Your task to perform on an android device: Open Google Chrome and click the shortcut for Amazon.com Image 0: 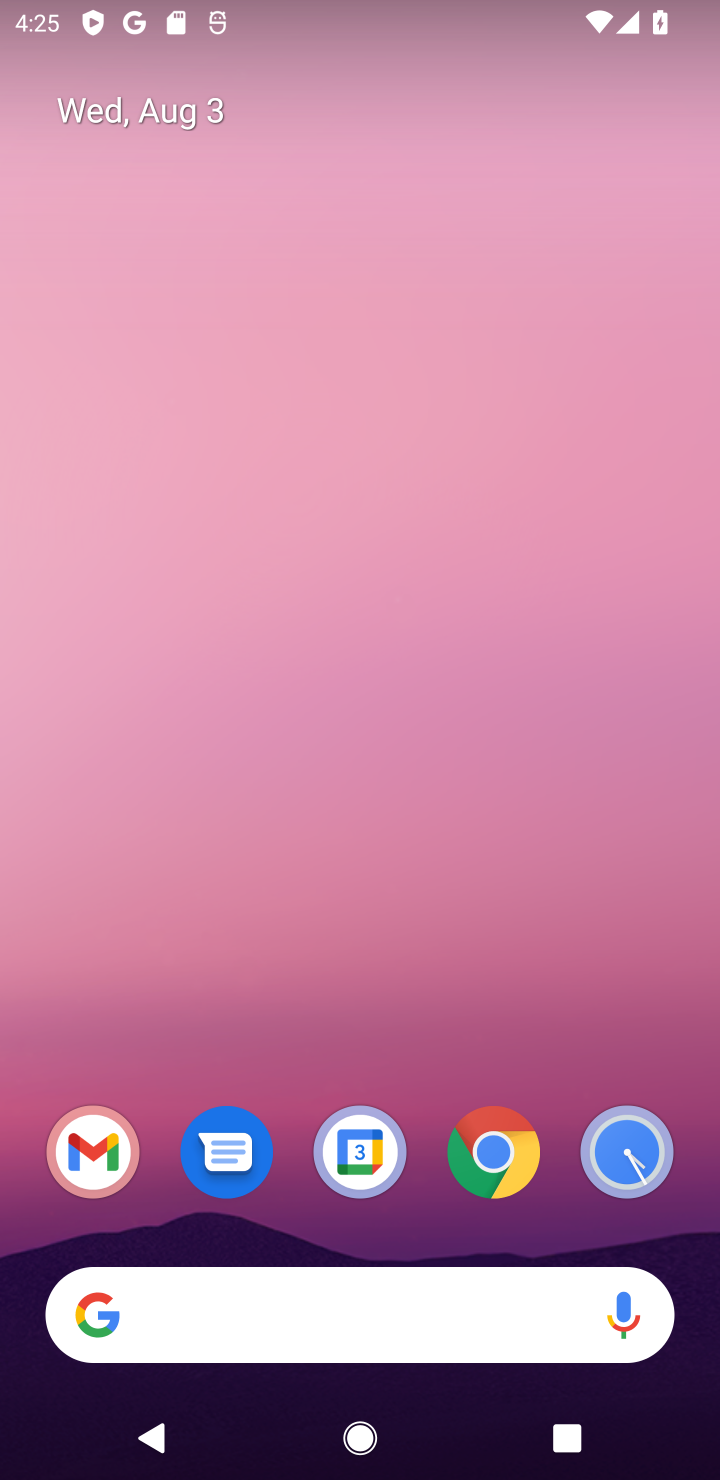
Step 0: click (510, 1172)
Your task to perform on an android device: Open Google Chrome and click the shortcut for Amazon.com Image 1: 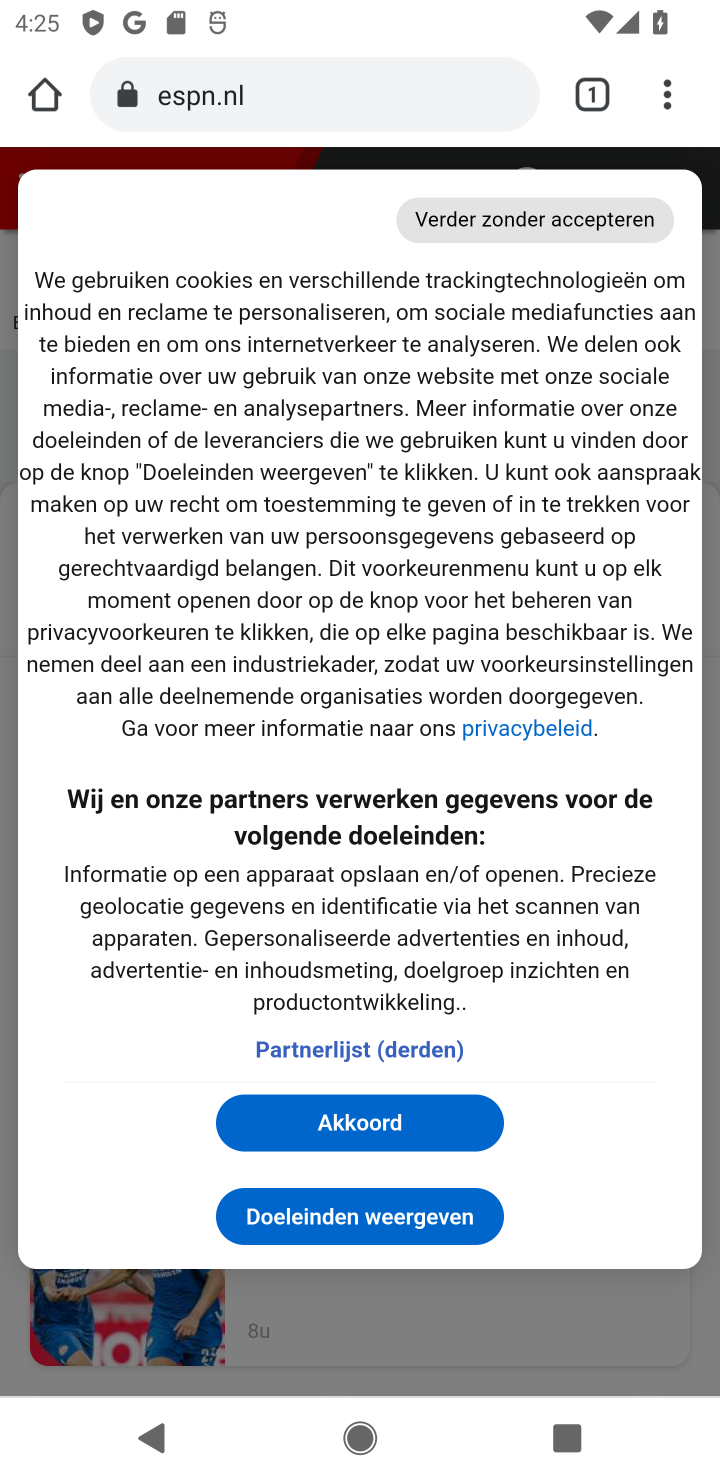
Step 1: click (584, 105)
Your task to perform on an android device: Open Google Chrome and click the shortcut for Amazon.com Image 2: 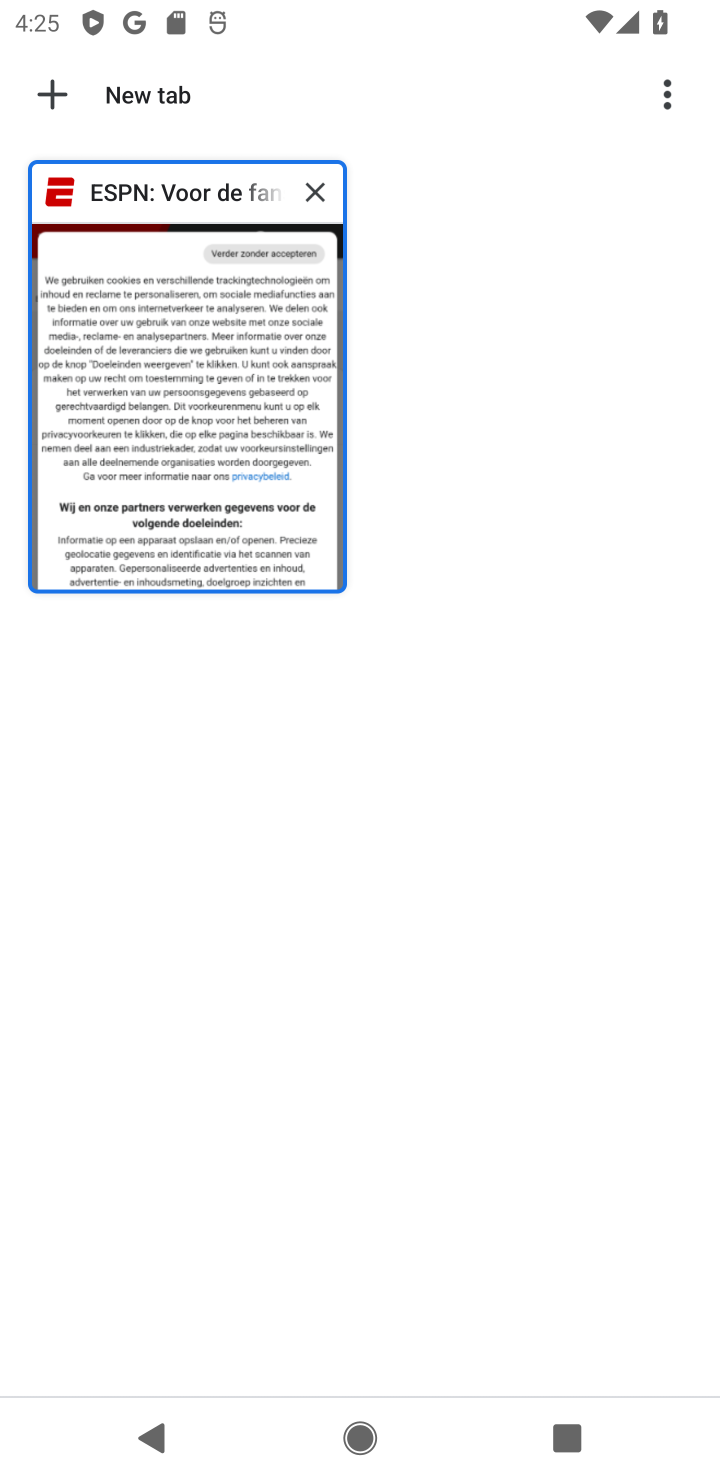
Step 2: click (48, 116)
Your task to perform on an android device: Open Google Chrome and click the shortcut for Amazon.com Image 3: 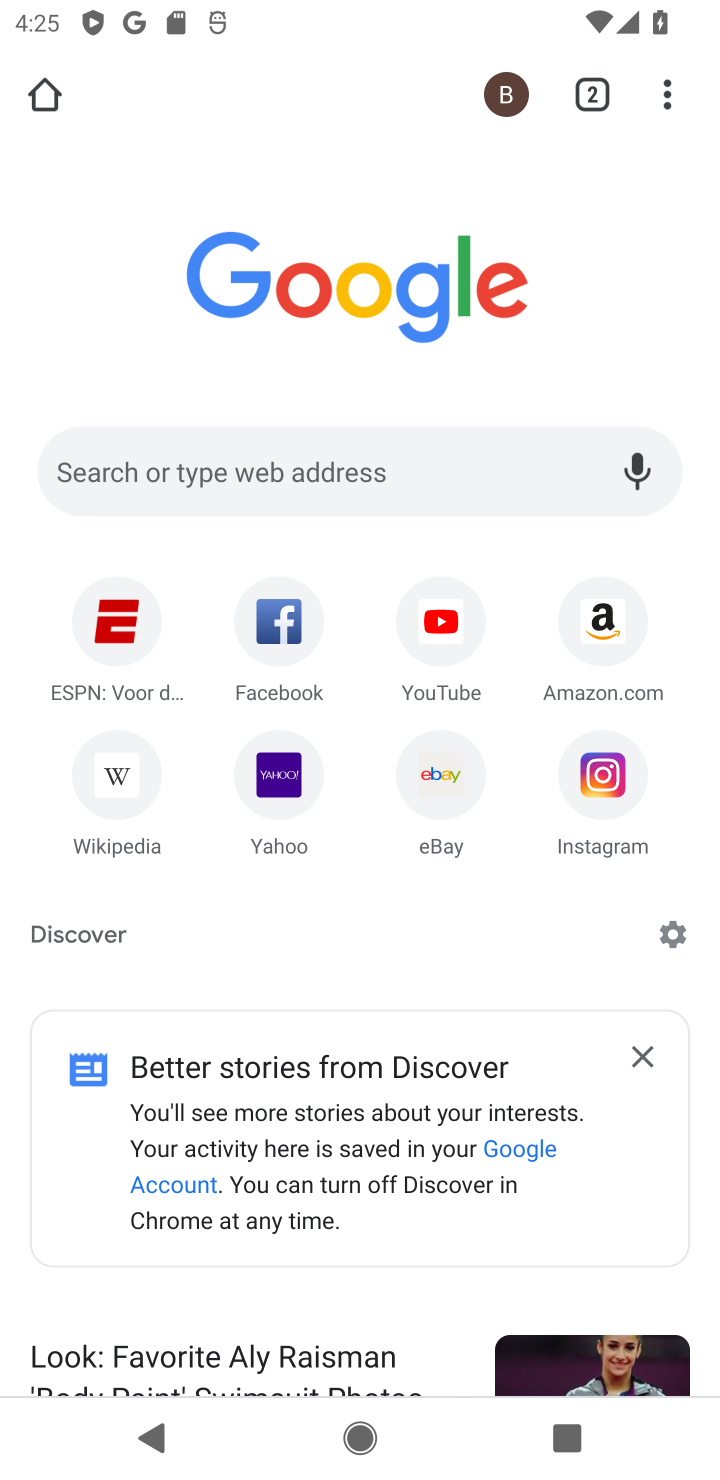
Step 3: click (588, 647)
Your task to perform on an android device: Open Google Chrome and click the shortcut for Amazon.com Image 4: 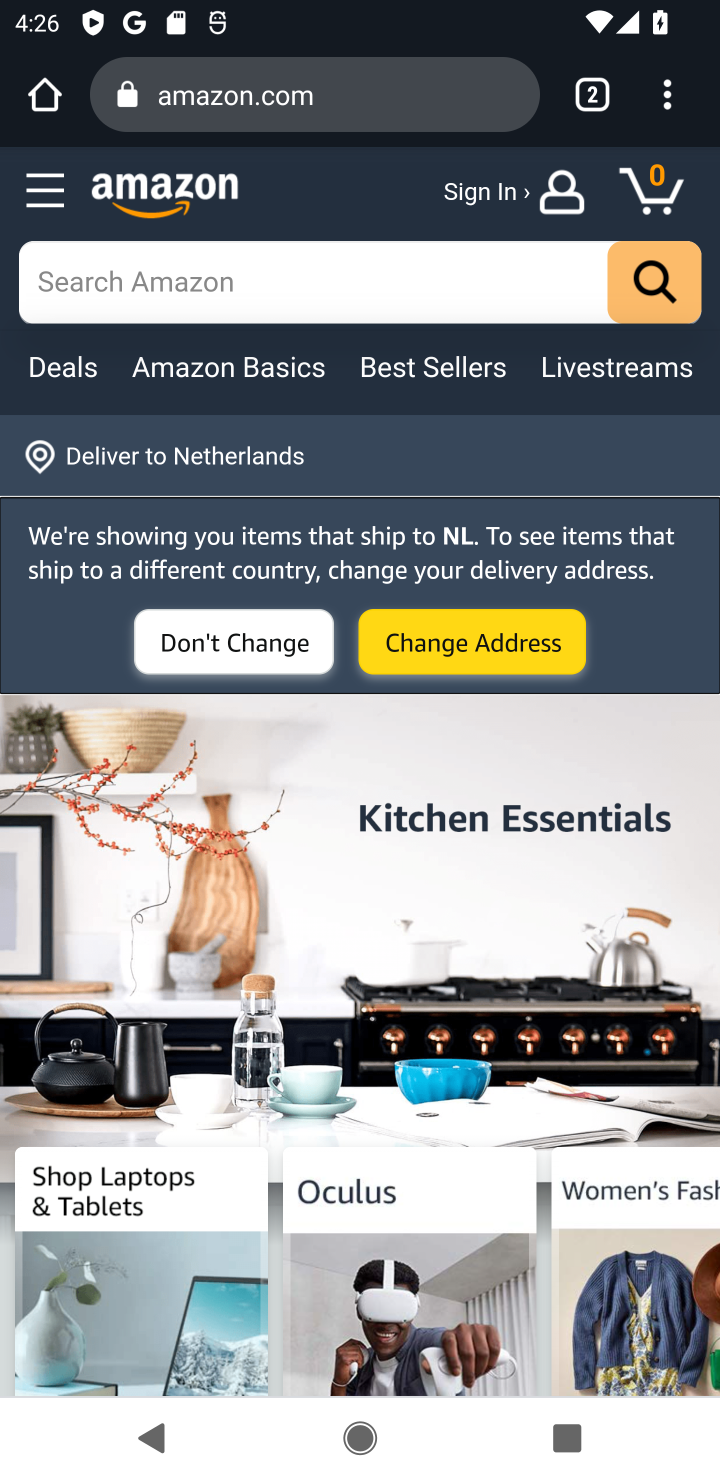
Step 4: task complete